Your task to perform on an android device: Open Yahoo.com Image 0: 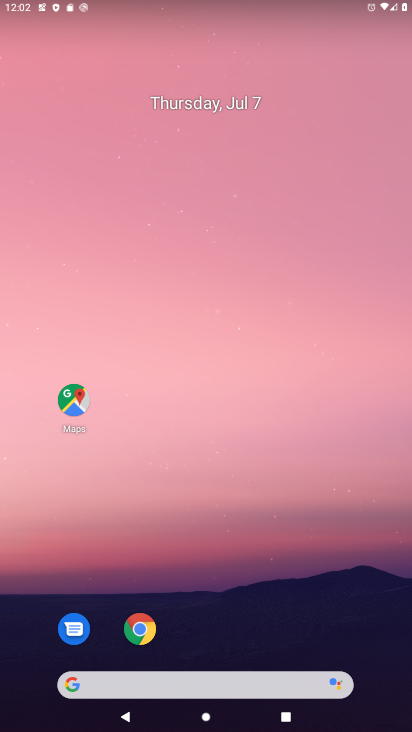
Step 0: click (146, 620)
Your task to perform on an android device: Open Yahoo.com Image 1: 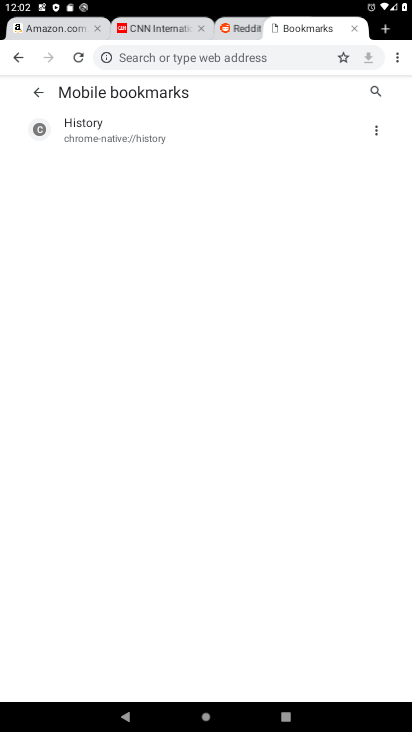
Step 1: click (381, 30)
Your task to perform on an android device: Open Yahoo.com Image 2: 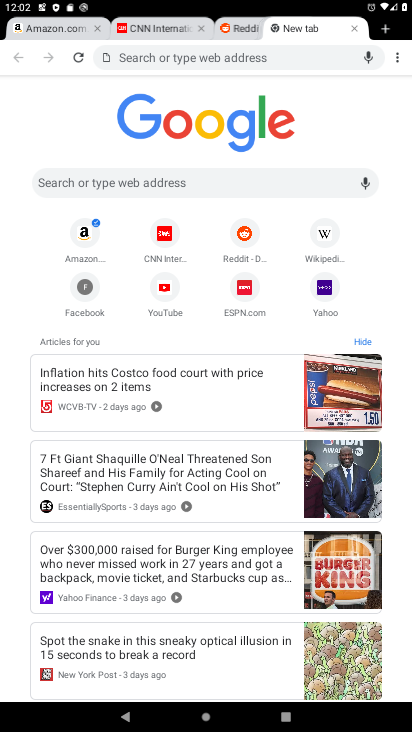
Step 2: click (314, 280)
Your task to perform on an android device: Open Yahoo.com Image 3: 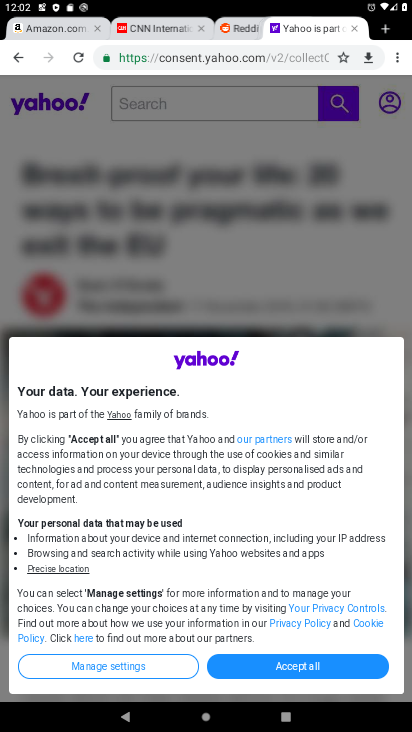
Step 3: task complete